Your task to perform on an android device: Open Chrome and go to settings Image 0: 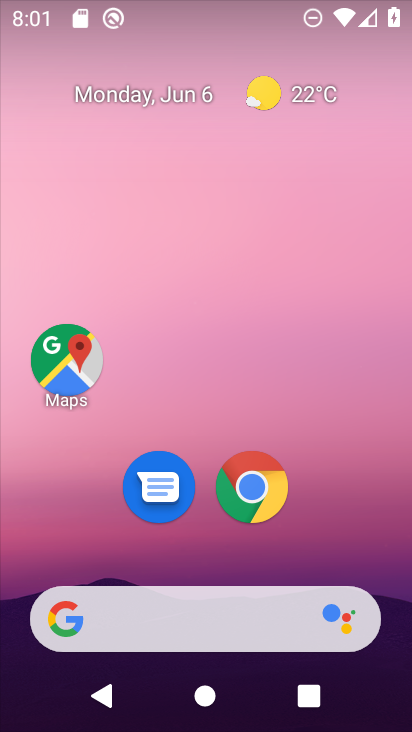
Step 0: drag from (393, 621) to (325, 69)
Your task to perform on an android device: Open Chrome and go to settings Image 1: 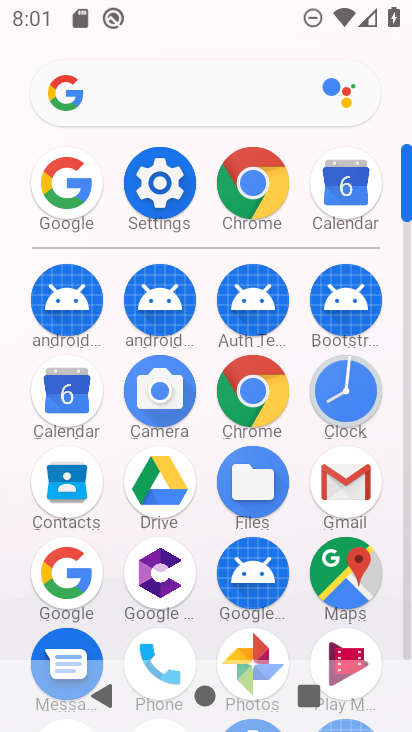
Step 1: click (272, 164)
Your task to perform on an android device: Open Chrome and go to settings Image 2: 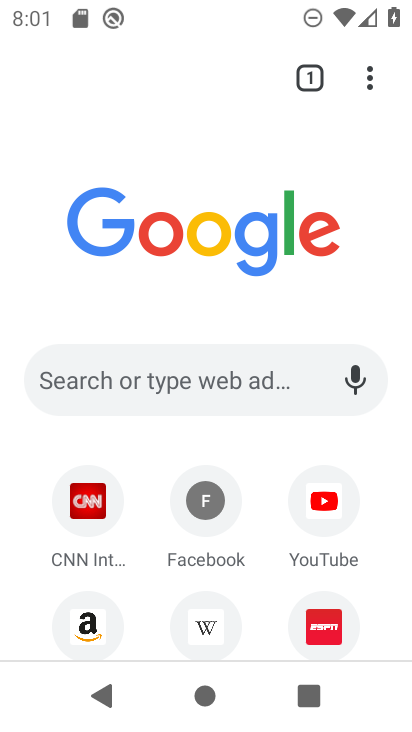
Step 2: click (372, 76)
Your task to perform on an android device: Open Chrome and go to settings Image 3: 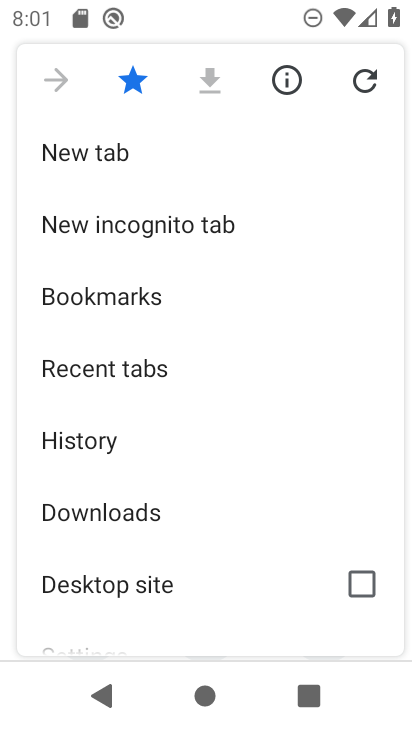
Step 3: drag from (146, 591) to (208, 143)
Your task to perform on an android device: Open Chrome and go to settings Image 4: 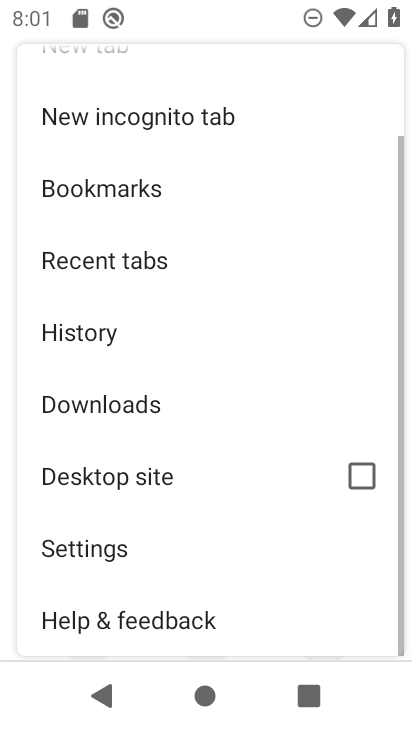
Step 4: click (127, 557)
Your task to perform on an android device: Open Chrome and go to settings Image 5: 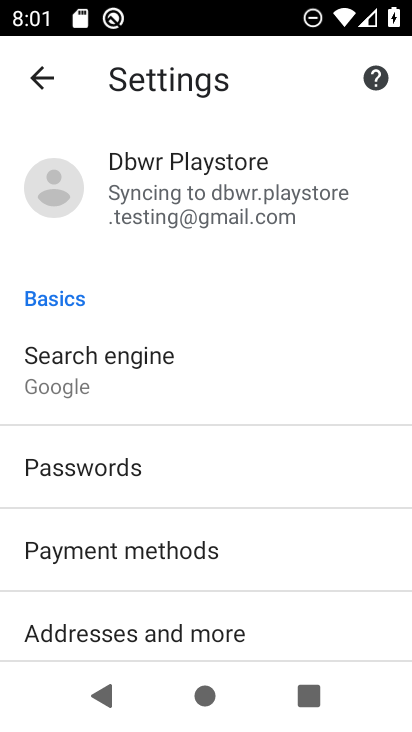
Step 5: task complete